Your task to perform on an android device: install app "TextNow: Call + Text Unlimited" Image 0: 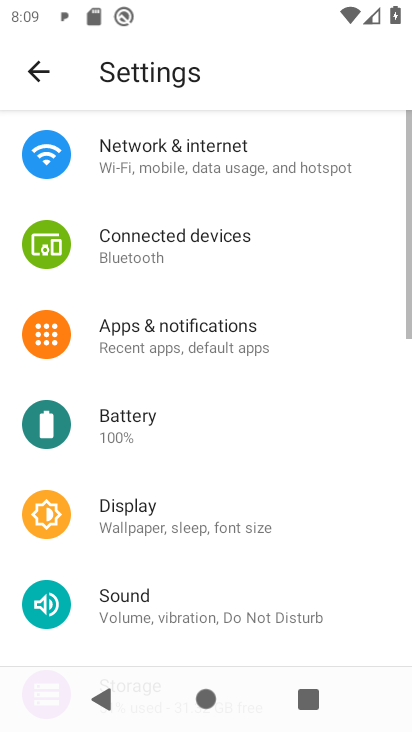
Step 0: press home button
Your task to perform on an android device: install app "TextNow: Call + Text Unlimited" Image 1: 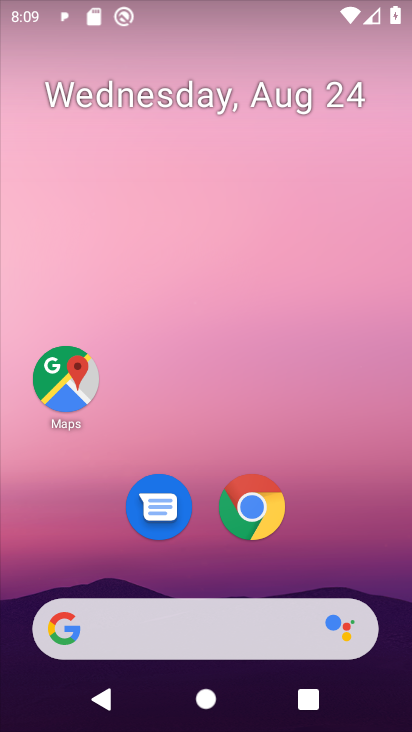
Step 1: drag from (389, 592) to (394, 167)
Your task to perform on an android device: install app "TextNow: Call + Text Unlimited" Image 2: 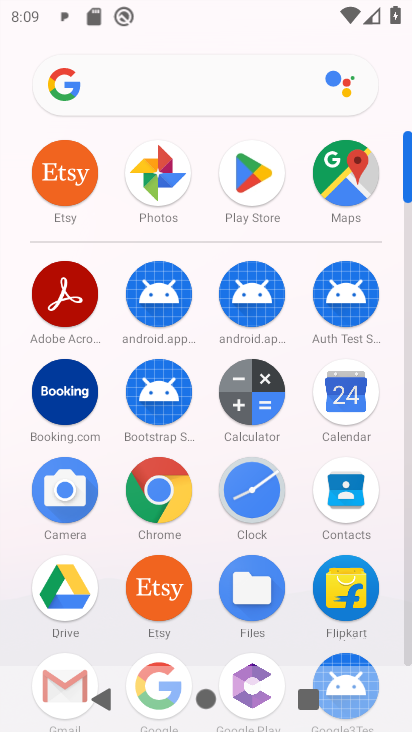
Step 2: click (264, 191)
Your task to perform on an android device: install app "TextNow: Call + Text Unlimited" Image 3: 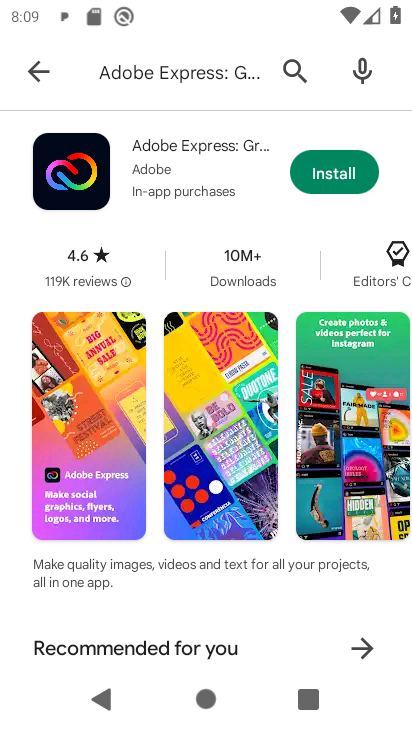
Step 3: press back button
Your task to perform on an android device: install app "TextNow: Call + Text Unlimited" Image 4: 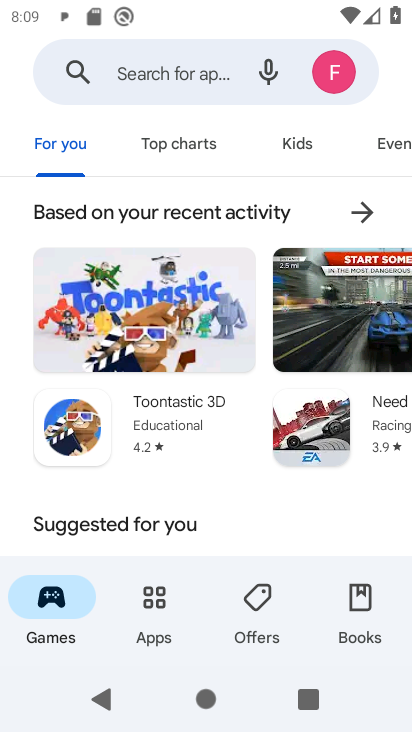
Step 4: click (179, 72)
Your task to perform on an android device: install app "TextNow: Call + Text Unlimited" Image 5: 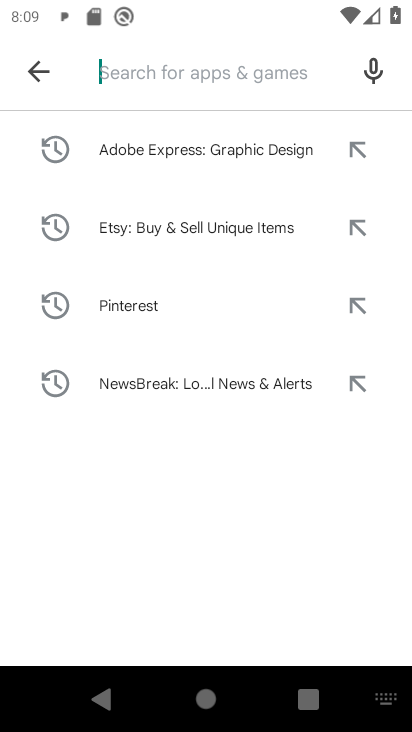
Step 5: type "TextNow: Call + Text Unlimited"
Your task to perform on an android device: install app "TextNow: Call + Text Unlimited" Image 6: 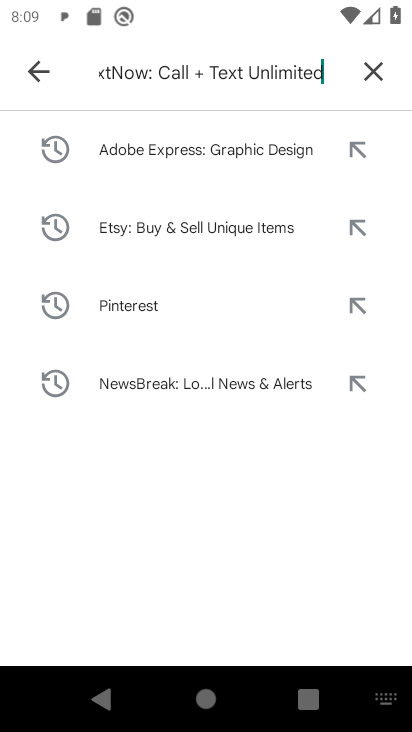
Step 6: press enter
Your task to perform on an android device: install app "TextNow: Call + Text Unlimited" Image 7: 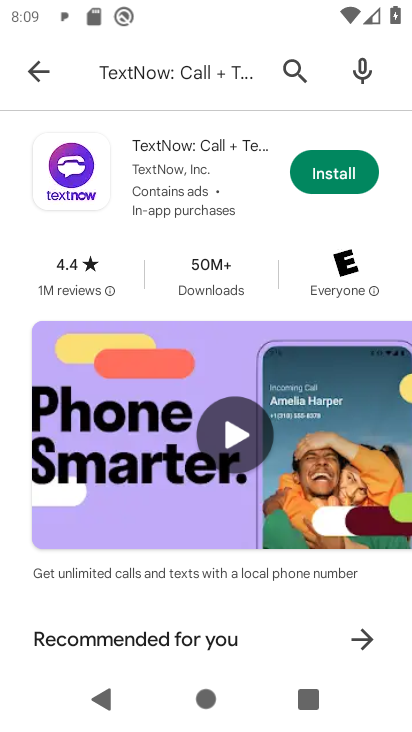
Step 7: click (344, 175)
Your task to perform on an android device: install app "TextNow: Call + Text Unlimited" Image 8: 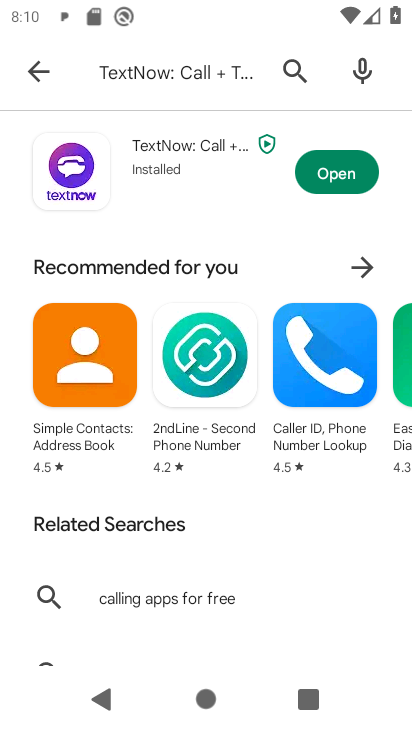
Step 8: task complete